Your task to perform on an android device: Open Chrome and go to settings Image 0: 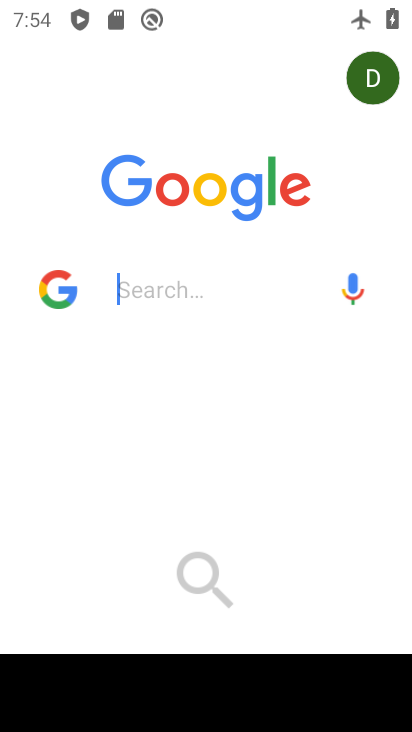
Step 0: press home button
Your task to perform on an android device: Open Chrome and go to settings Image 1: 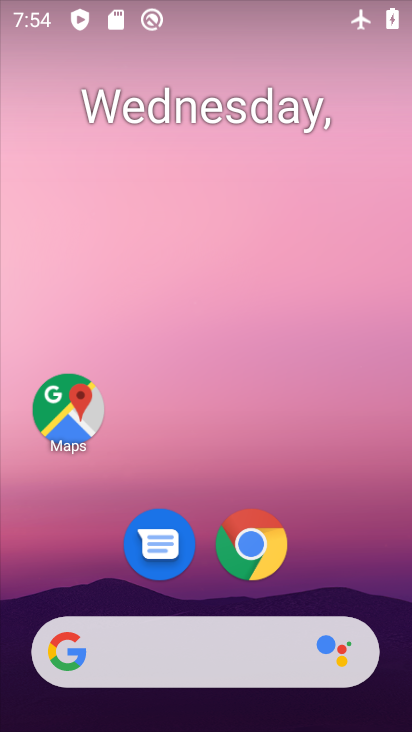
Step 1: click (252, 548)
Your task to perform on an android device: Open Chrome and go to settings Image 2: 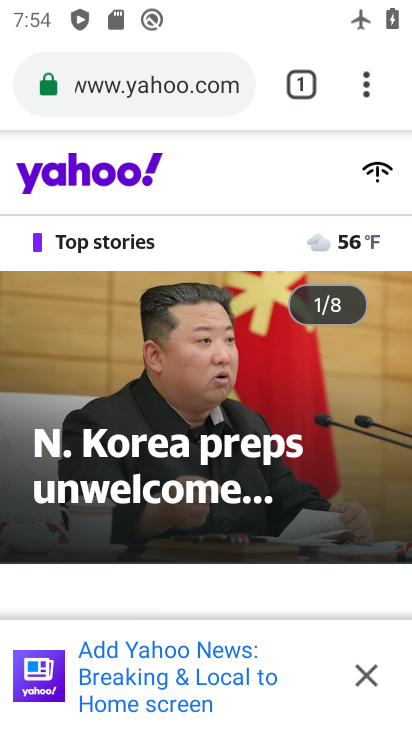
Step 2: click (368, 95)
Your task to perform on an android device: Open Chrome and go to settings Image 3: 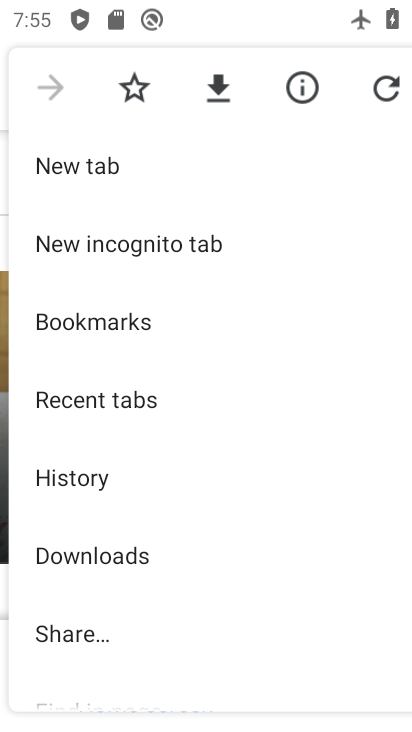
Step 3: drag from (51, 646) to (71, 205)
Your task to perform on an android device: Open Chrome and go to settings Image 4: 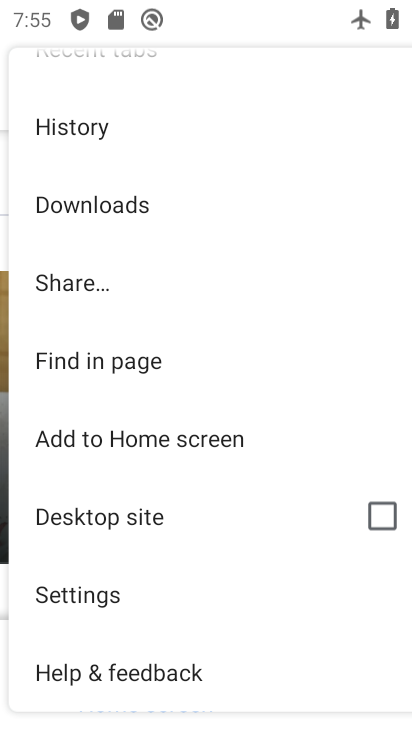
Step 4: click (86, 587)
Your task to perform on an android device: Open Chrome and go to settings Image 5: 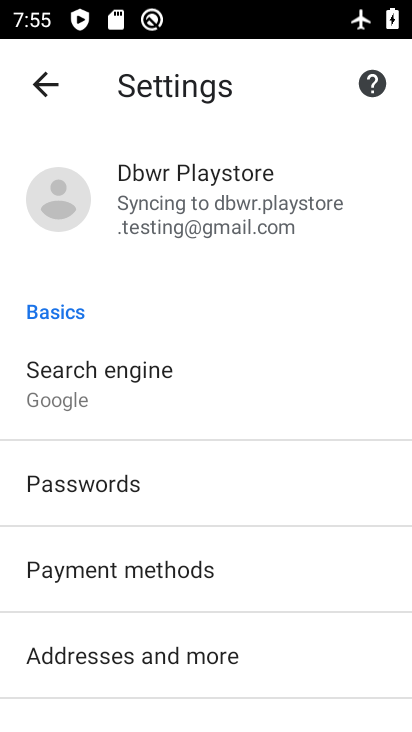
Step 5: task complete